Your task to perform on an android device: check storage Image 0: 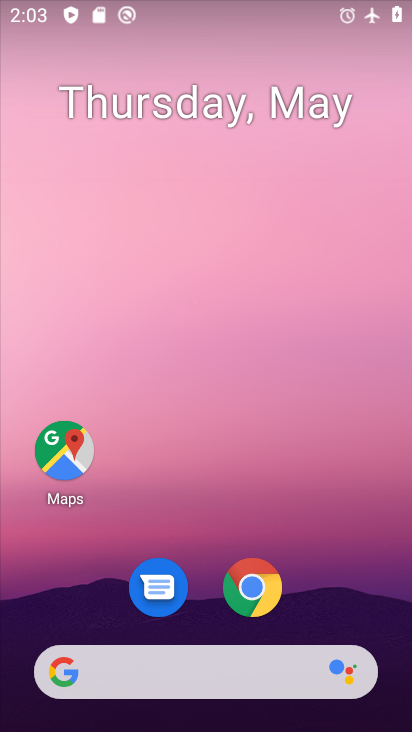
Step 0: drag from (307, 570) to (244, 113)
Your task to perform on an android device: check storage Image 1: 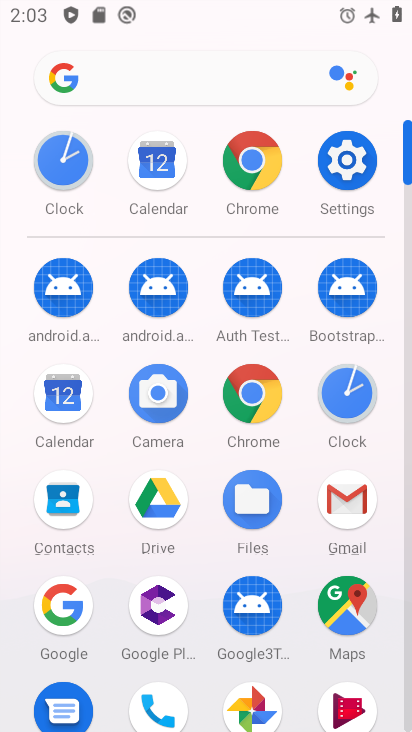
Step 1: click (346, 162)
Your task to perform on an android device: check storage Image 2: 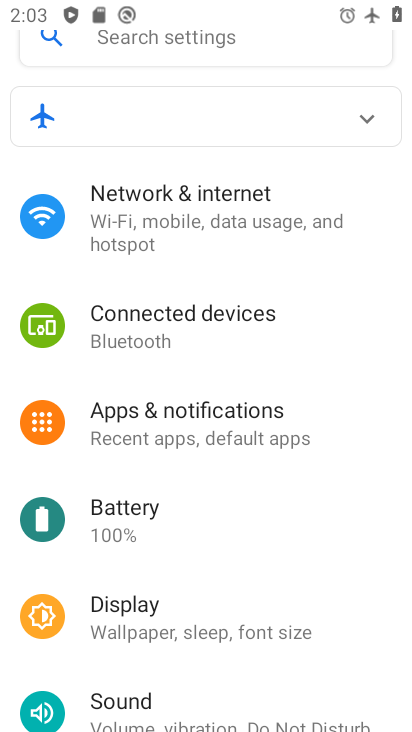
Step 2: drag from (217, 538) to (172, 230)
Your task to perform on an android device: check storage Image 3: 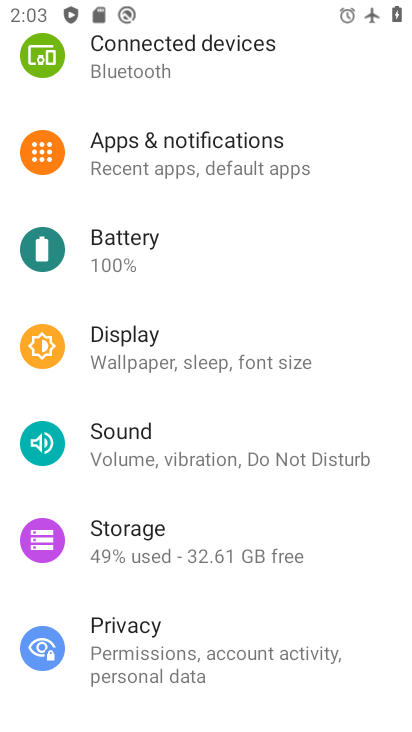
Step 3: click (127, 532)
Your task to perform on an android device: check storage Image 4: 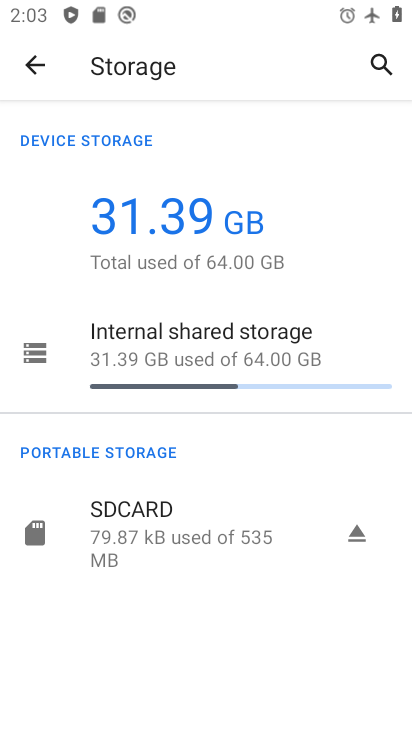
Step 4: task complete